Your task to perform on an android device: Go to calendar. Show me events next week Image 0: 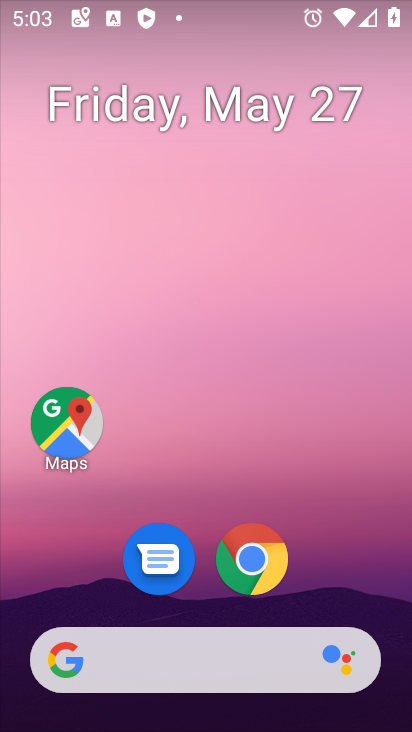
Step 0: drag from (283, 641) to (333, 81)
Your task to perform on an android device: Go to calendar. Show me events next week Image 1: 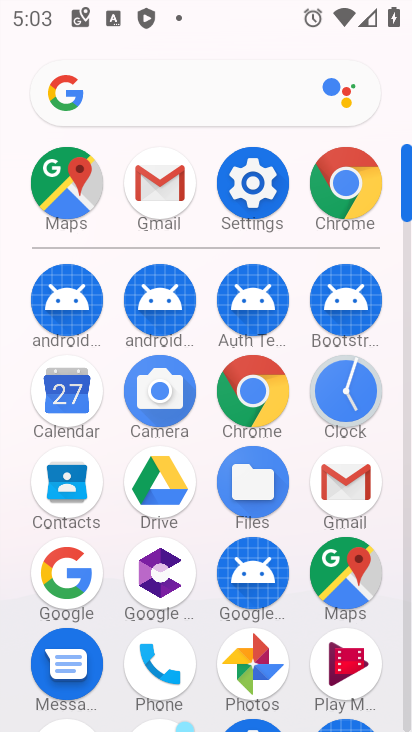
Step 1: click (73, 394)
Your task to perform on an android device: Go to calendar. Show me events next week Image 2: 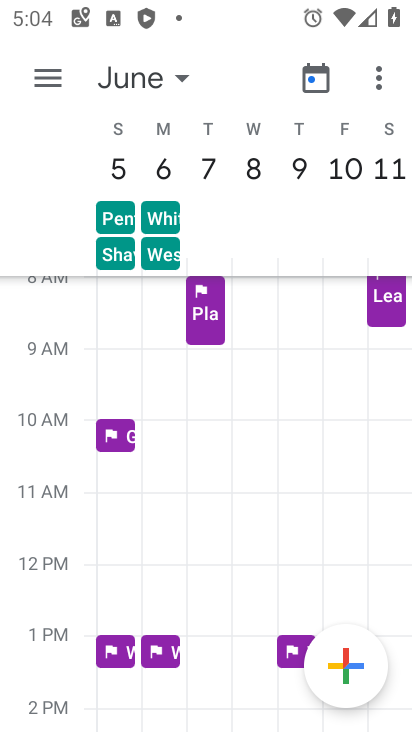
Step 2: click (187, 76)
Your task to perform on an android device: Go to calendar. Show me events next week Image 3: 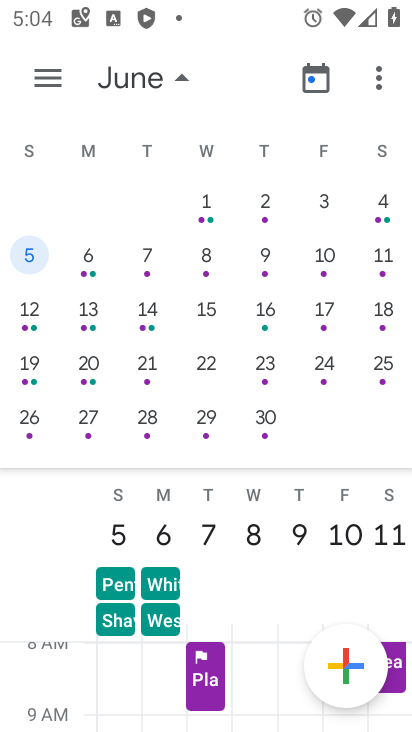
Step 3: drag from (370, 300) to (404, 413)
Your task to perform on an android device: Go to calendar. Show me events next week Image 4: 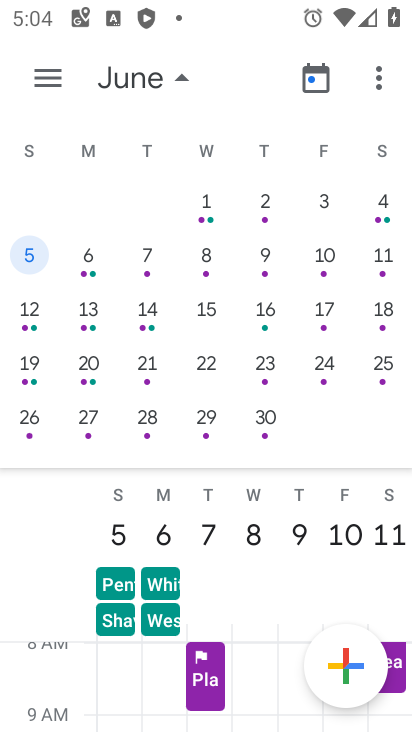
Step 4: drag from (146, 307) to (406, 347)
Your task to perform on an android device: Go to calendar. Show me events next week Image 5: 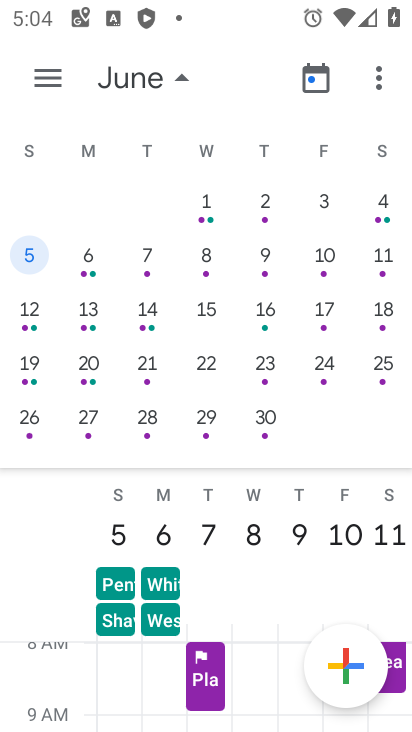
Step 5: drag from (48, 304) to (412, 420)
Your task to perform on an android device: Go to calendar. Show me events next week Image 6: 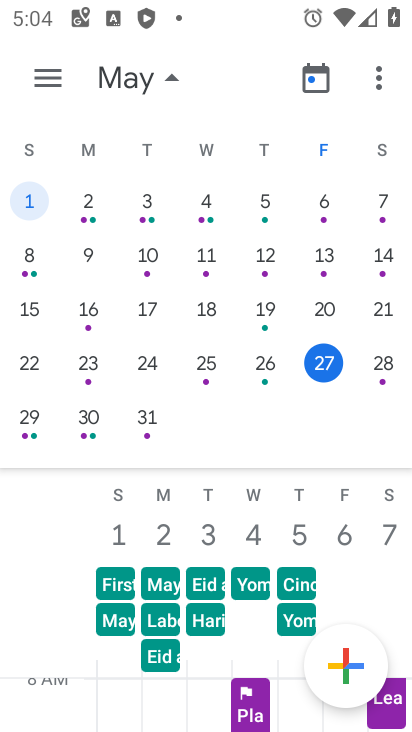
Step 6: click (88, 415)
Your task to perform on an android device: Go to calendar. Show me events next week Image 7: 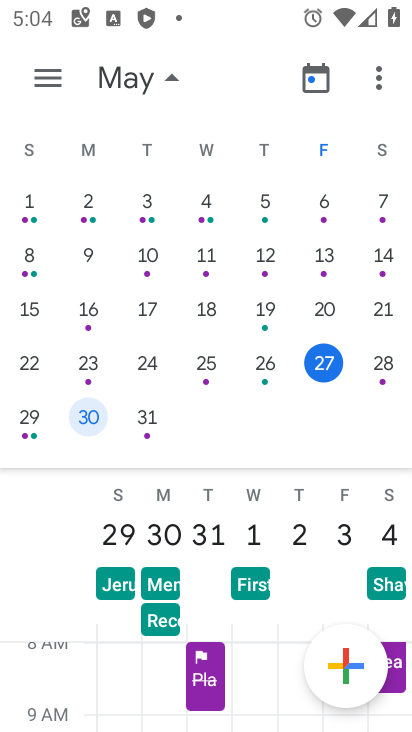
Step 7: click (51, 77)
Your task to perform on an android device: Go to calendar. Show me events next week Image 8: 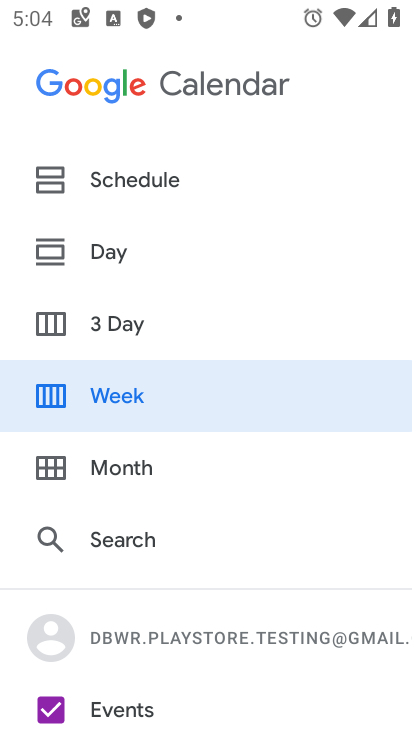
Step 8: click (146, 395)
Your task to perform on an android device: Go to calendar. Show me events next week Image 9: 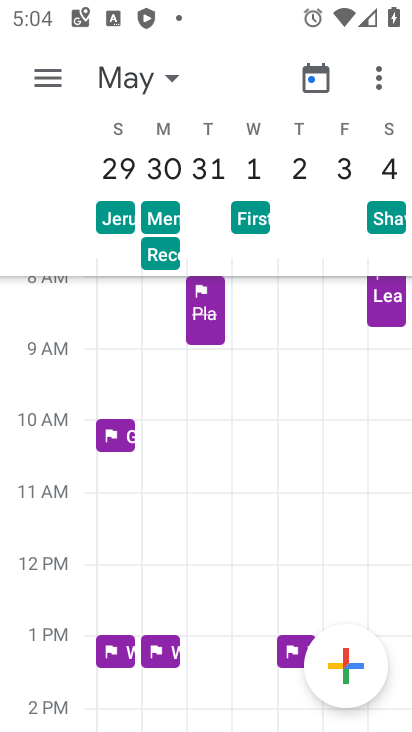
Step 9: task complete